Your task to perform on an android device: Go to battery settings Image 0: 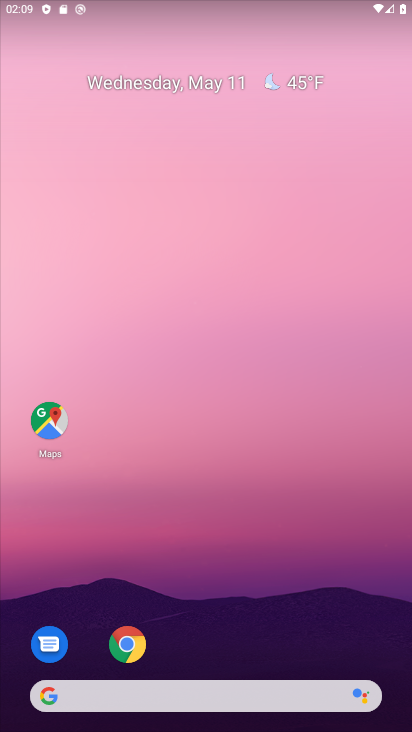
Step 0: drag from (223, 653) to (311, 59)
Your task to perform on an android device: Go to battery settings Image 1: 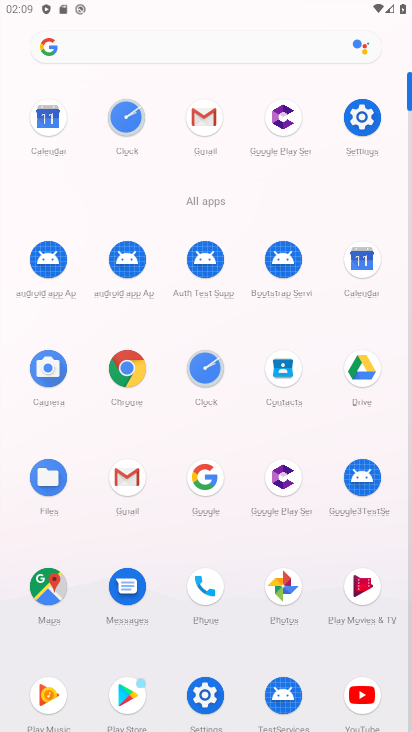
Step 1: click (364, 114)
Your task to perform on an android device: Go to battery settings Image 2: 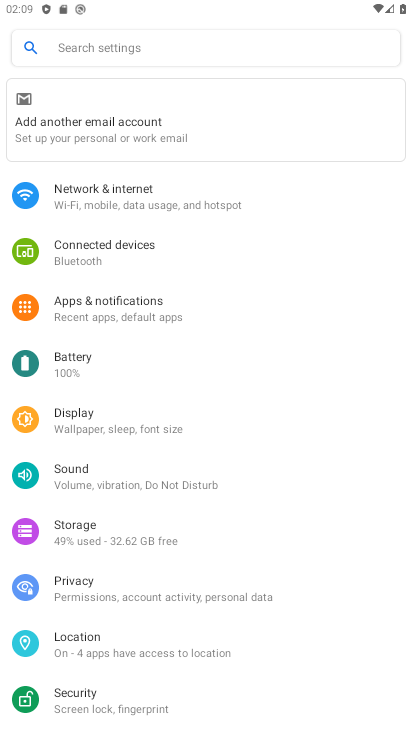
Step 2: click (66, 372)
Your task to perform on an android device: Go to battery settings Image 3: 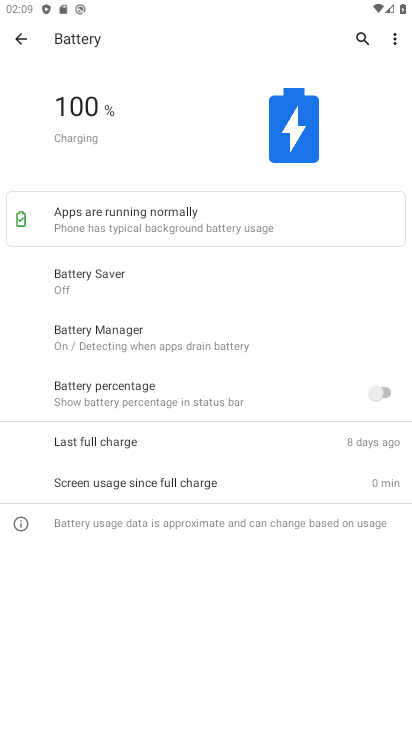
Step 3: task complete